Your task to perform on an android device: What's on my calendar today? Image 0: 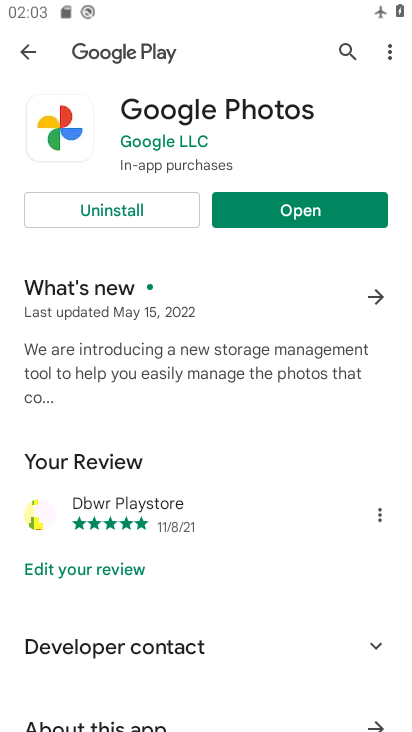
Step 0: press home button
Your task to perform on an android device: What's on my calendar today? Image 1: 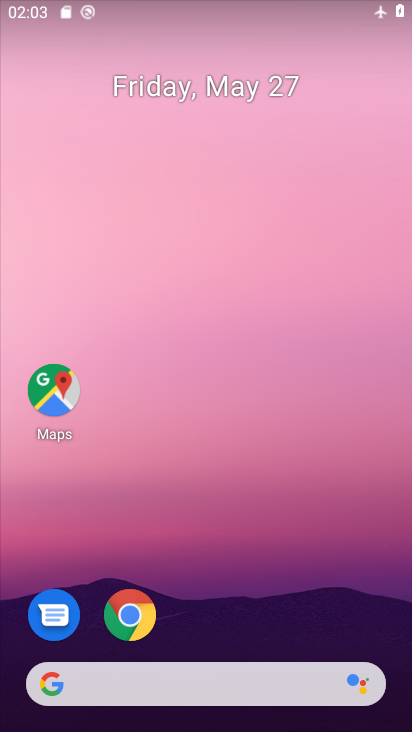
Step 1: drag from (356, 631) to (364, 270)
Your task to perform on an android device: What's on my calendar today? Image 2: 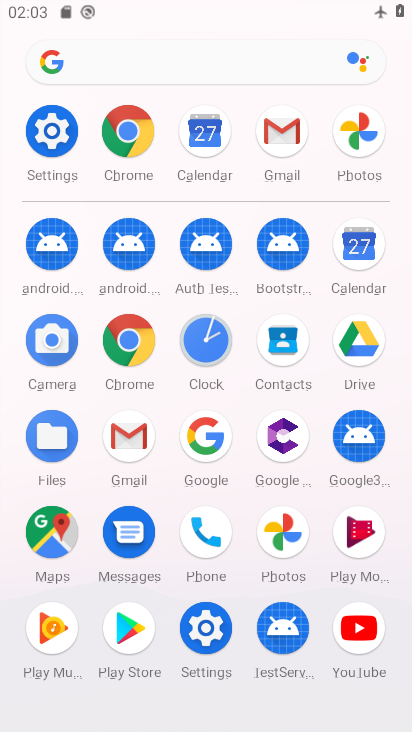
Step 2: click (350, 278)
Your task to perform on an android device: What's on my calendar today? Image 3: 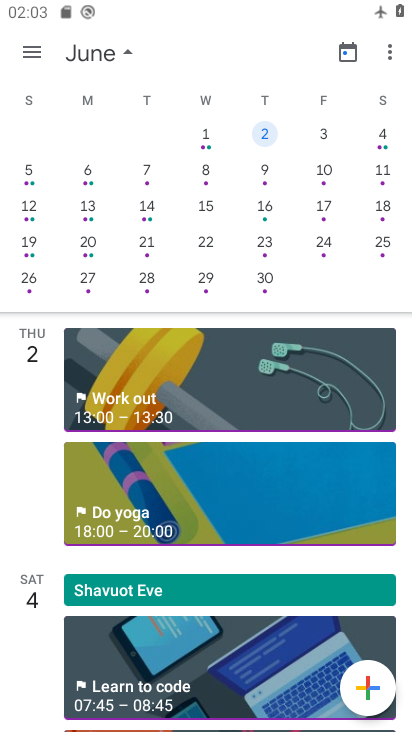
Step 3: drag from (35, 124) to (405, 151)
Your task to perform on an android device: What's on my calendar today? Image 4: 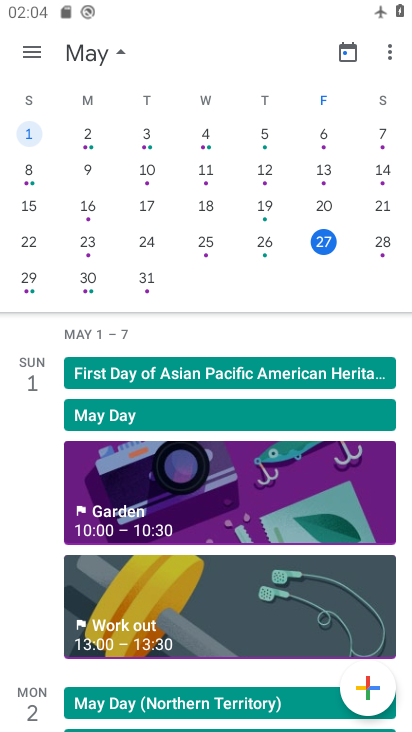
Step 4: click (324, 247)
Your task to perform on an android device: What's on my calendar today? Image 5: 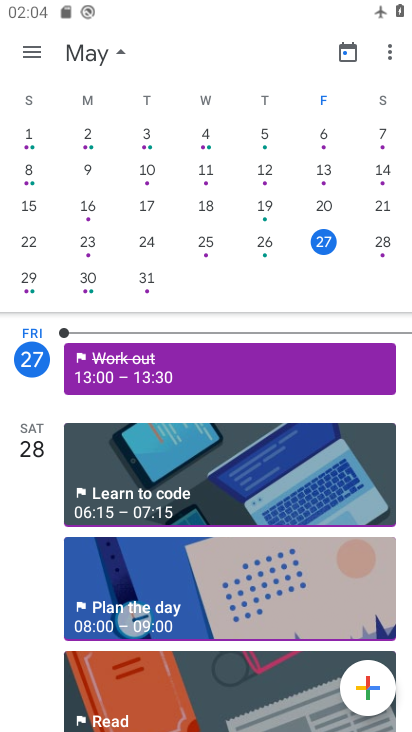
Step 5: click (245, 377)
Your task to perform on an android device: What's on my calendar today? Image 6: 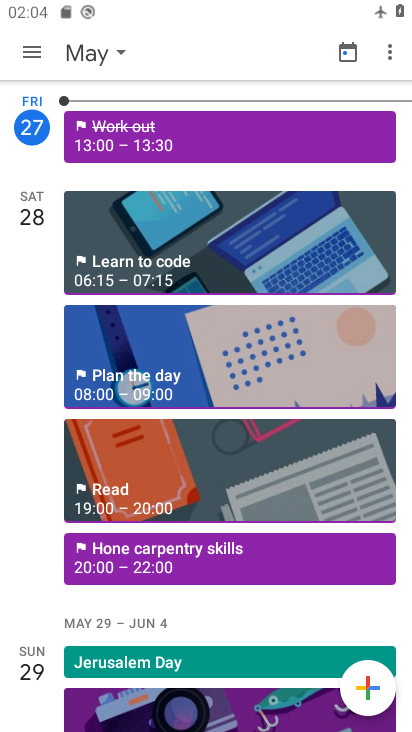
Step 6: click (219, 143)
Your task to perform on an android device: What's on my calendar today? Image 7: 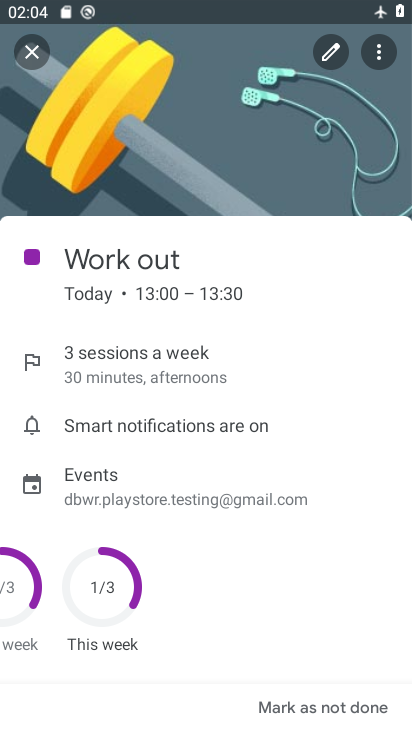
Step 7: task complete